Your task to perform on an android device: Go to settings Image 0: 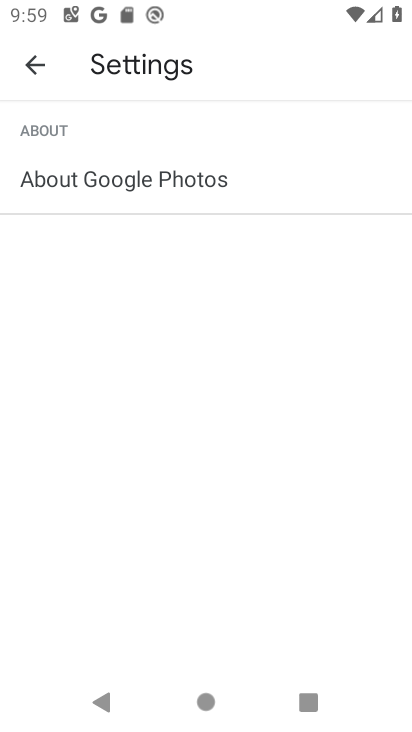
Step 0: press home button
Your task to perform on an android device: Go to settings Image 1: 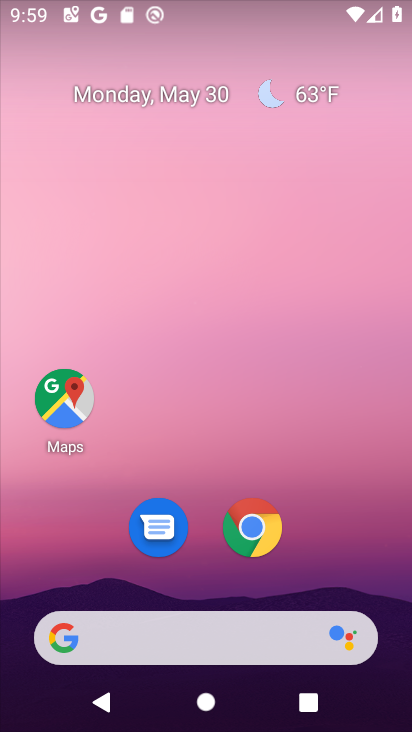
Step 1: drag from (303, 583) to (263, 213)
Your task to perform on an android device: Go to settings Image 2: 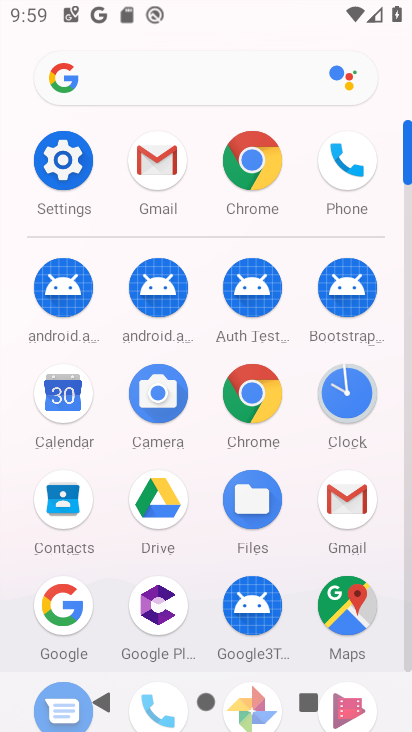
Step 2: click (67, 166)
Your task to perform on an android device: Go to settings Image 3: 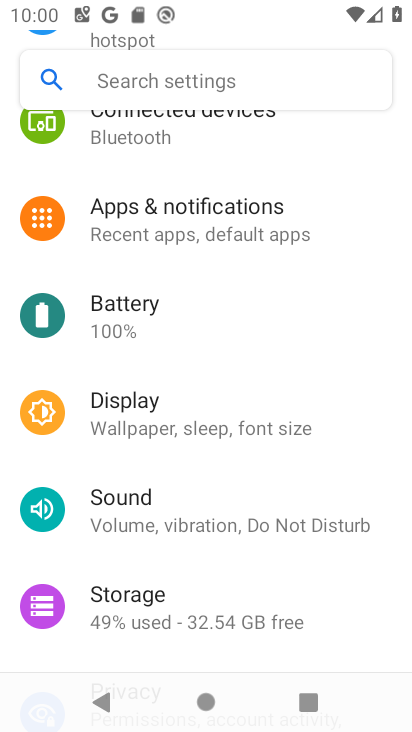
Step 3: task complete